Your task to perform on an android device: turn on bluetooth scan Image 0: 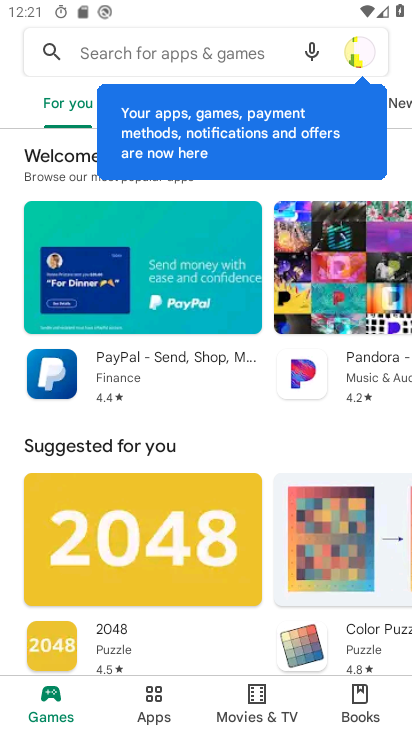
Step 0: press back button
Your task to perform on an android device: turn on bluetooth scan Image 1: 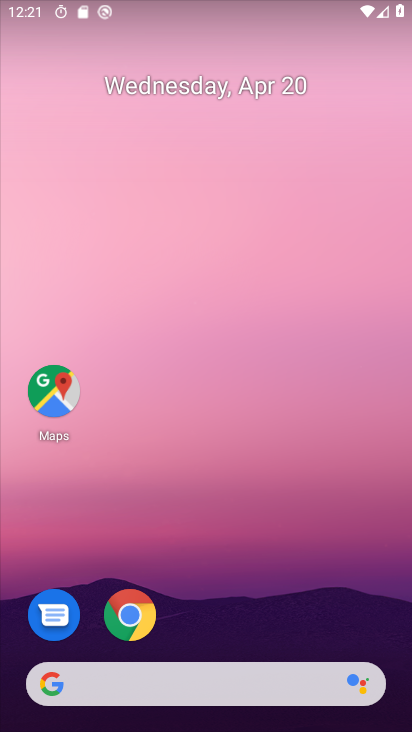
Step 1: drag from (215, 594) to (350, 95)
Your task to perform on an android device: turn on bluetooth scan Image 2: 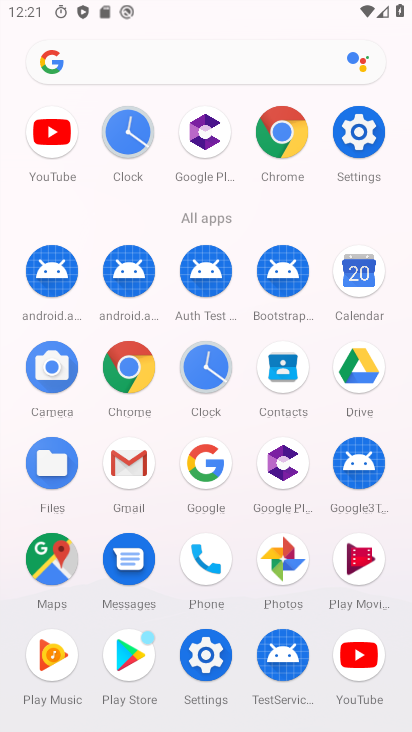
Step 2: click (365, 117)
Your task to perform on an android device: turn on bluetooth scan Image 3: 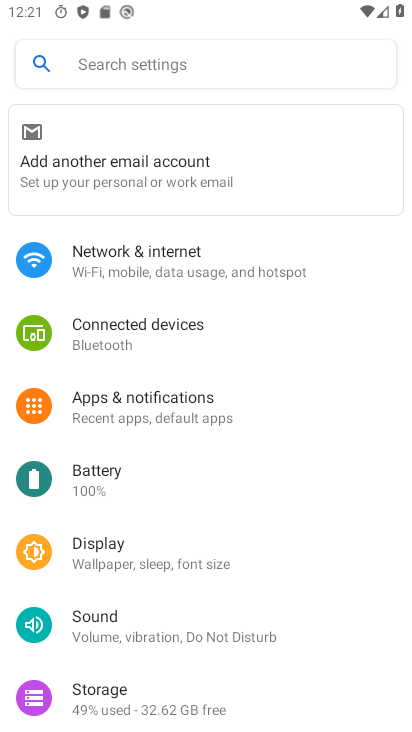
Step 3: click (217, 335)
Your task to perform on an android device: turn on bluetooth scan Image 4: 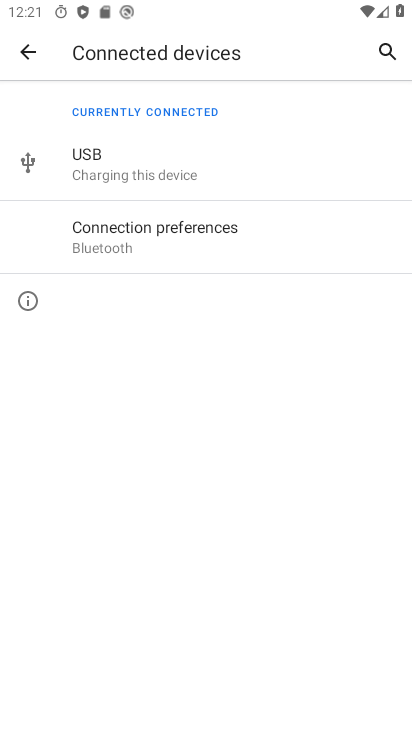
Step 4: click (183, 232)
Your task to perform on an android device: turn on bluetooth scan Image 5: 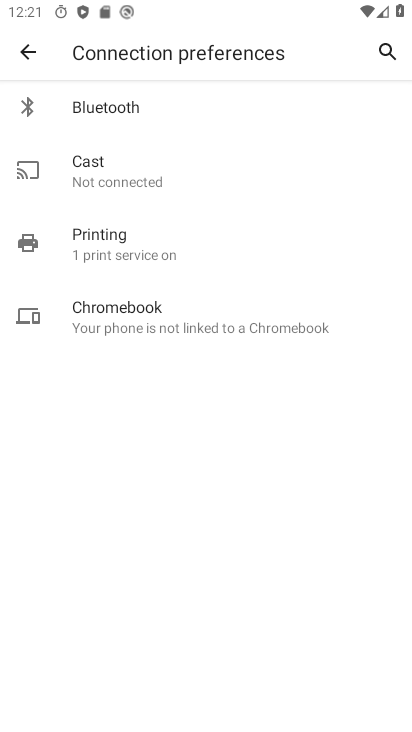
Step 5: click (195, 121)
Your task to perform on an android device: turn on bluetooth scan Image 6: 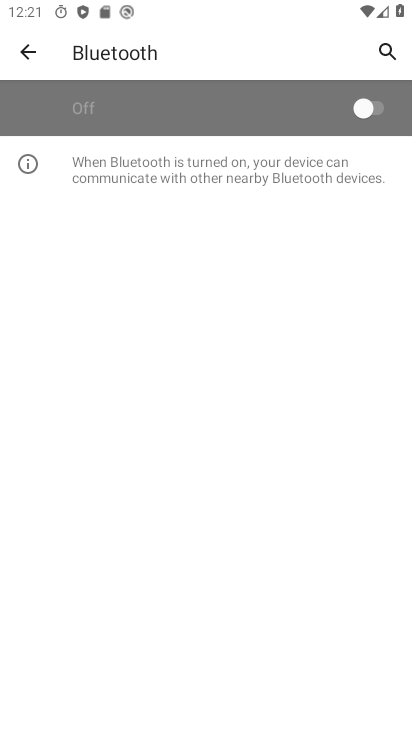
Step 6: click (396, 101)
Your task to perform on an android device: turn on bluetooth scan Image 7: 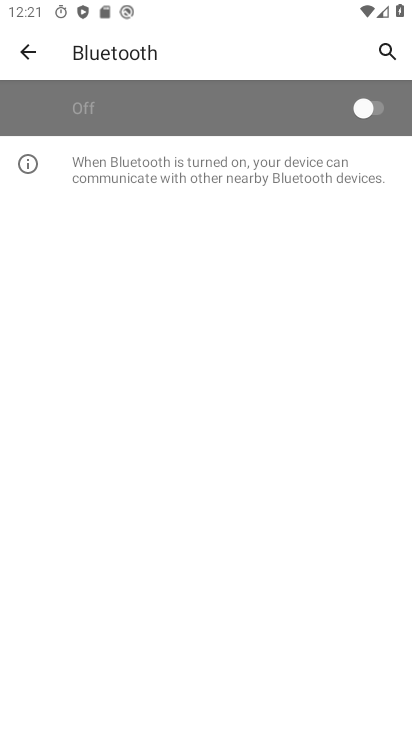
Step 7: task complete